Your task to perform on an android device: turn on notifications settings in the gmail app Image 0: 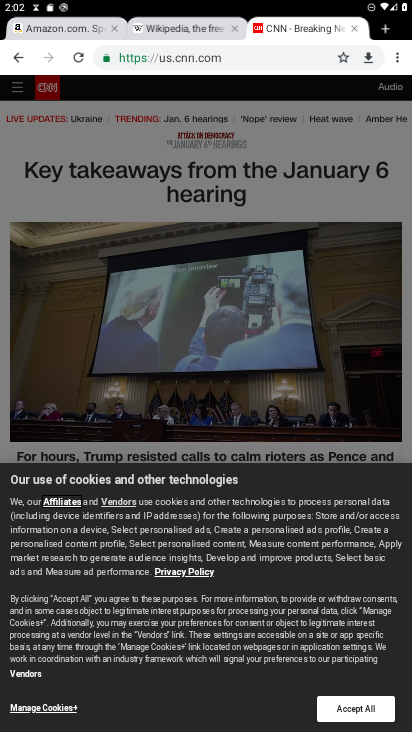
Step 0: press home button
Your task to perform on an android device: turn on notifications settings in the gmail app Image 1: 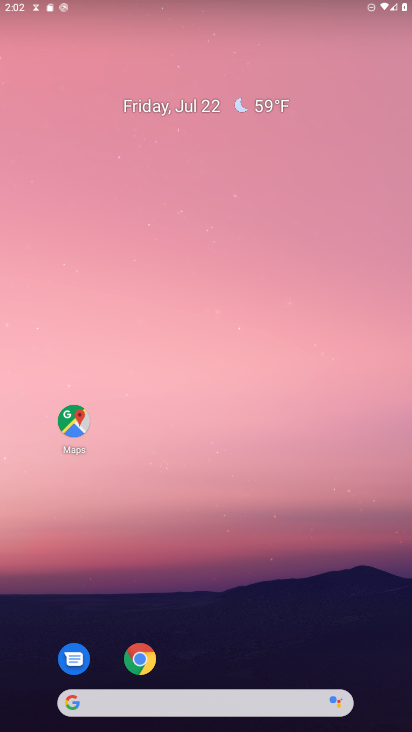
Step 1: drag from (374, 597) to (255, 0)
Your task to perform on an android device: turn on notifications settings in the gmail app Image 2: 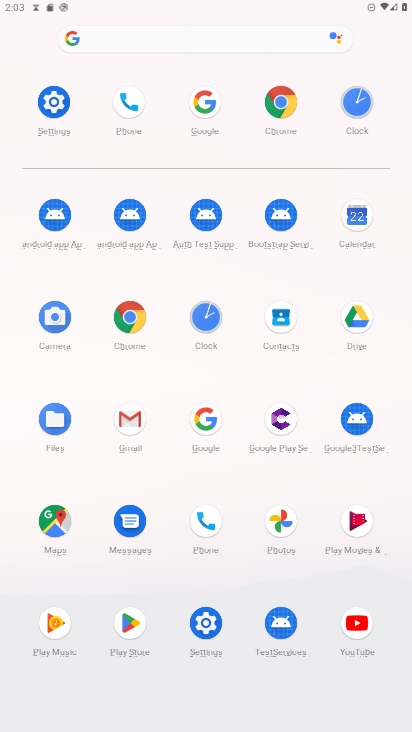
Step 2: click (138, 428)
Your task to perform on an android device: turn on notifications settings in the gmail app Image 3: 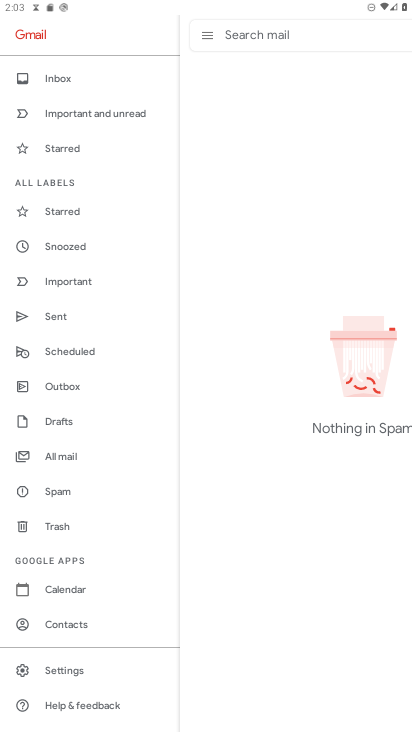
Step 3: click (64, 669)
Your task to perform on an android device: turn on notifications settings in the gmail app Image 4: 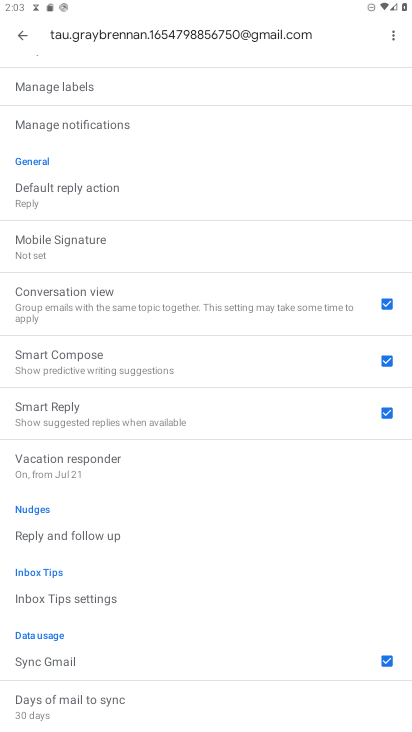
Step 4: drag from (146, 166) to (189, 635)
Your task to perform on an android device: turn on notifications settings in the gmail app Image 5: 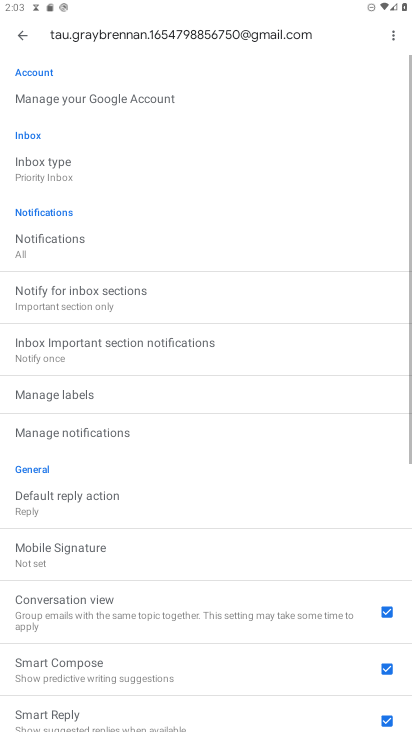
Step 5: click (34, 244)
Your task to perform on an android device: turn on notifications settings in the gmail app Image 6: 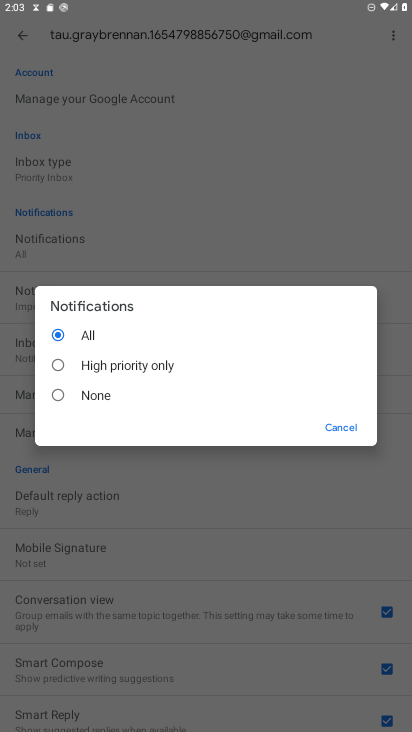
Step 6: task complete